Your task to perform on an android device: open app "Viber Messenger" Image 0: 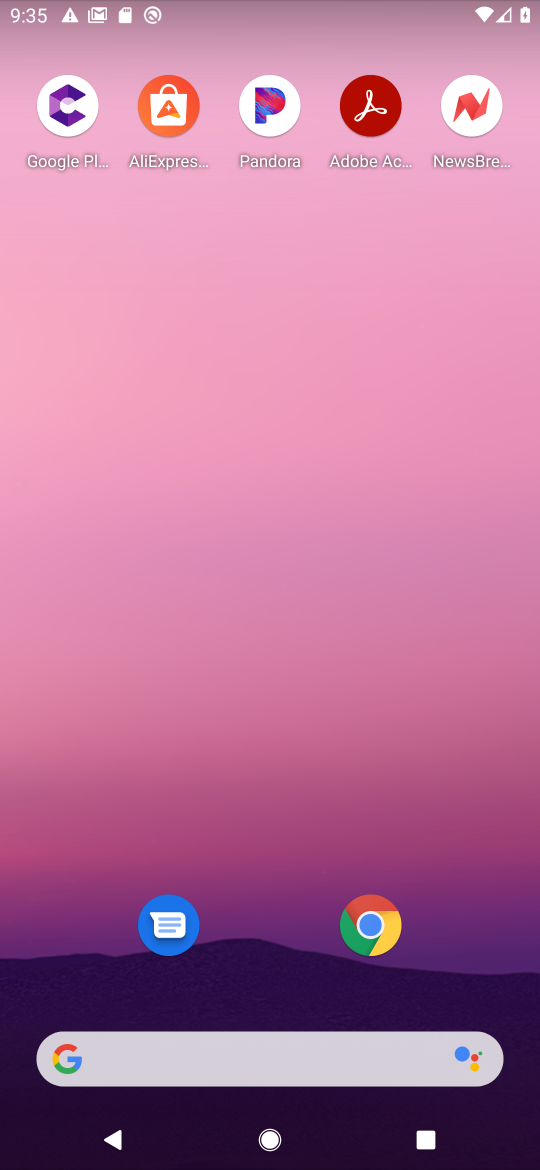
Step 0: click (234, 360)
Your task to perform on an android device: open app "Viber Messenger" Image 1: 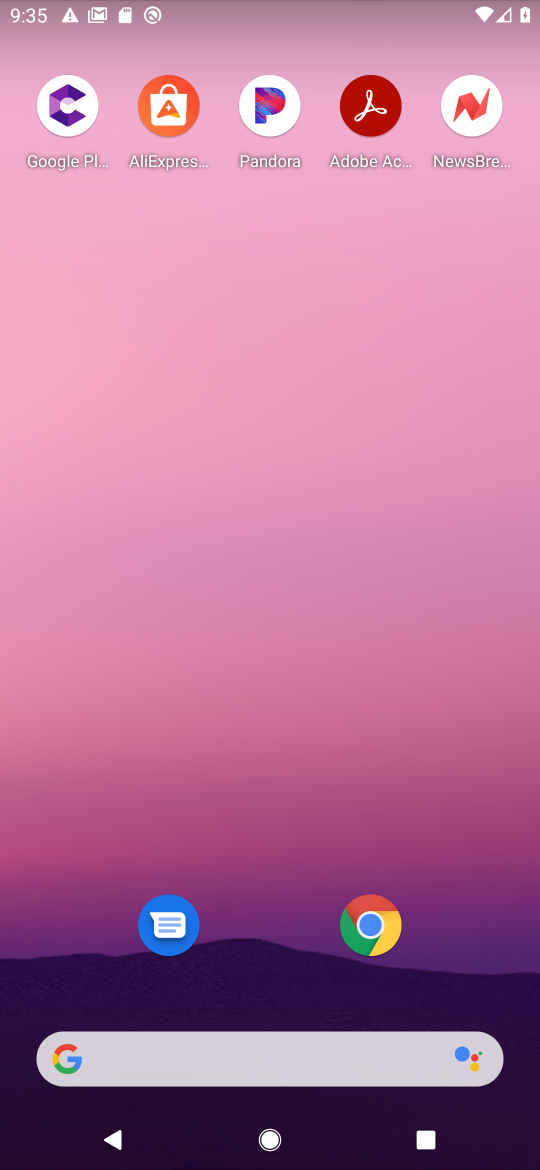
Step 1: drag from (304, 196) to (330, 134)
Your task to perform on an android device: open app "Viber Messenger" Image 2: 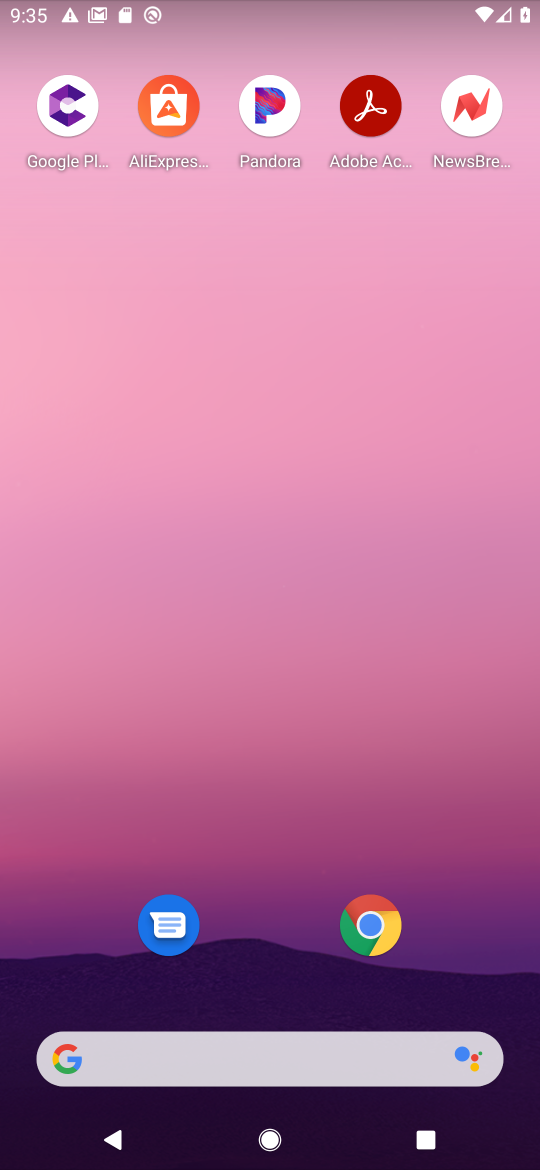
Step 2: drag from (280, 957) to (260, 160)
Your task to perform on an android device: open app "Viber Messenger" Image 3: 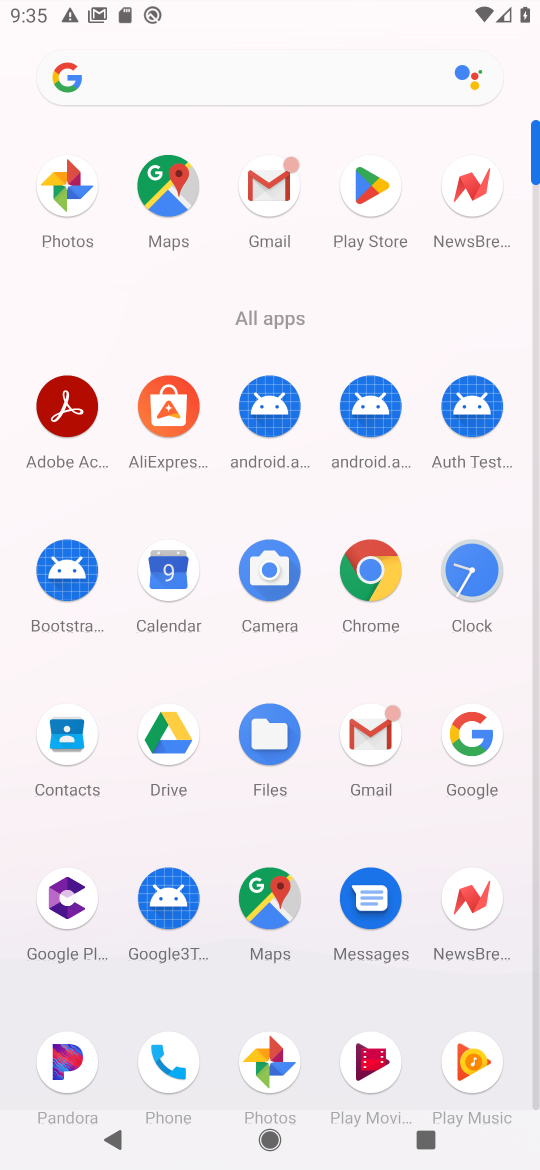
Step 3: click (374, 209)
Your task to perform on an android device: open app "Viber Messenger" Image 4: 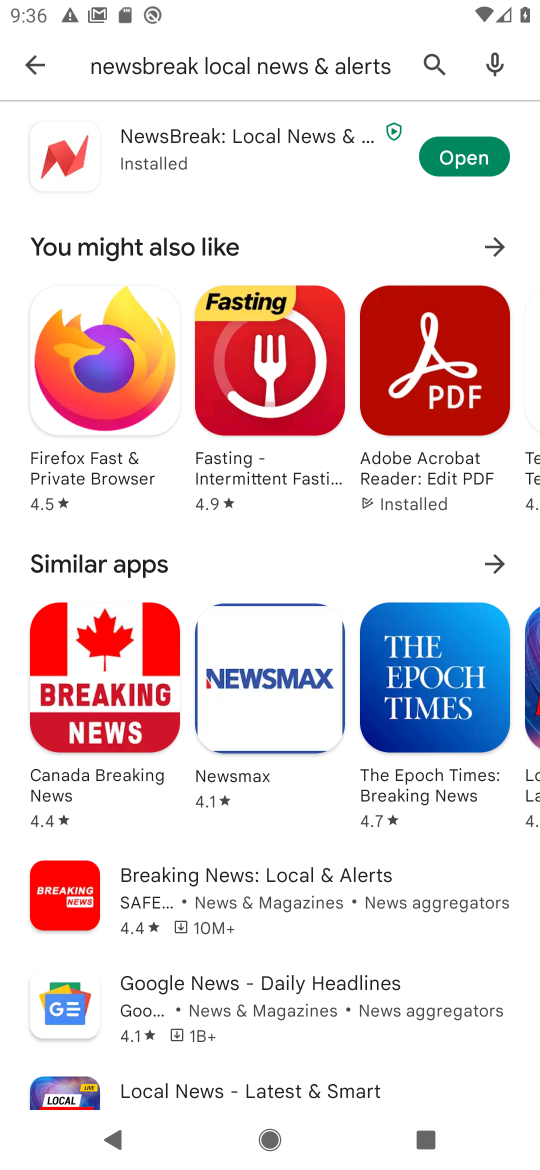
Step 4: click (34, 68)
Your task to perform on an android device: open app "Viber Messenger" Image 5: 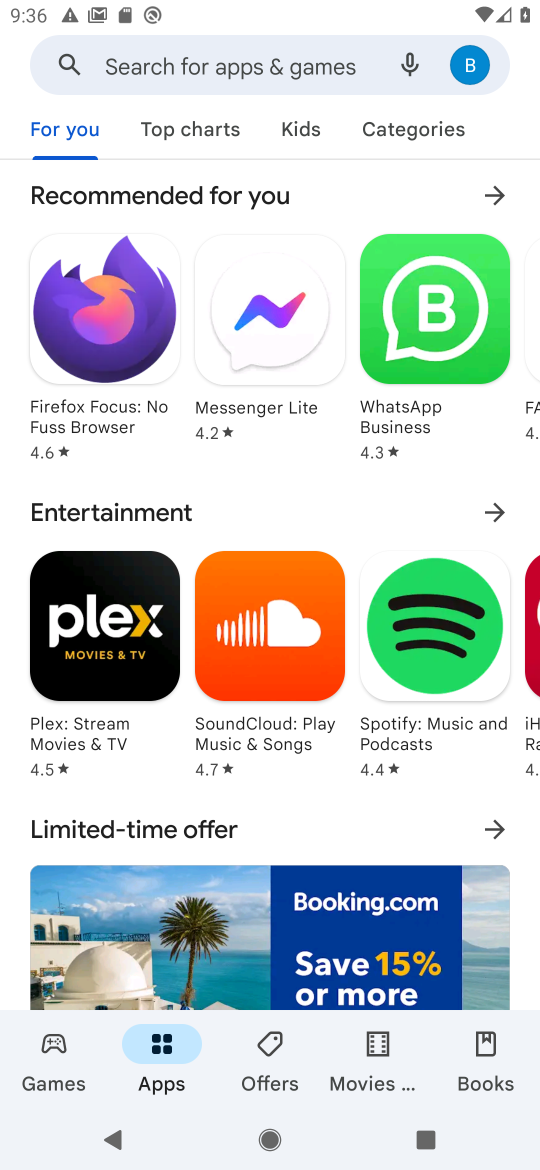
Step 5: click (150, 68)
Your task to perform on an android device: open app "Viber Messenger" Image 6: 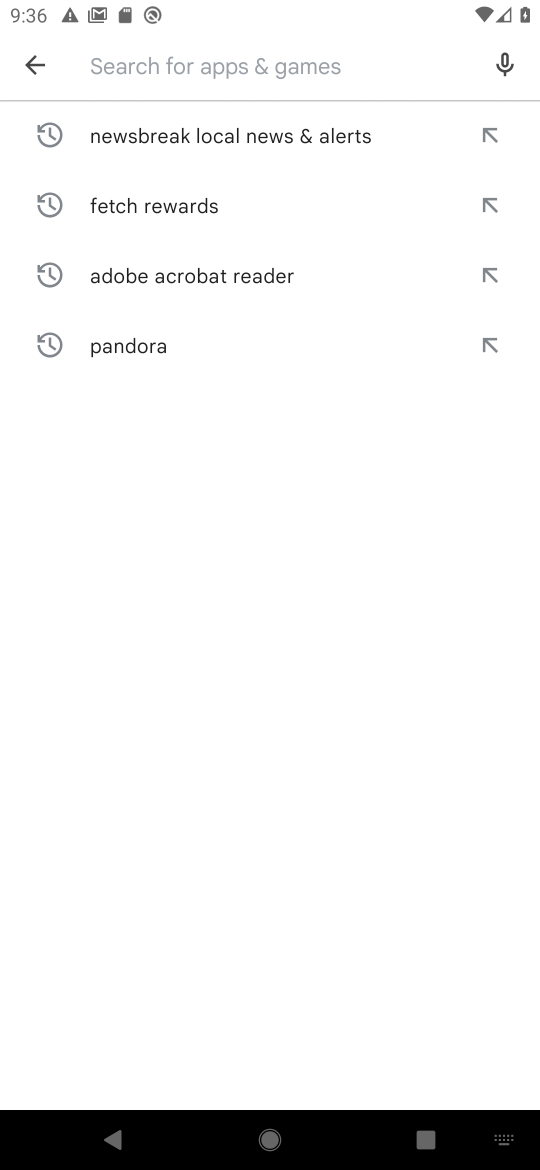
Step 6: type "Viber Messenger"
Your task to perform on an android device: open app "Viber Messenger" Image 7: 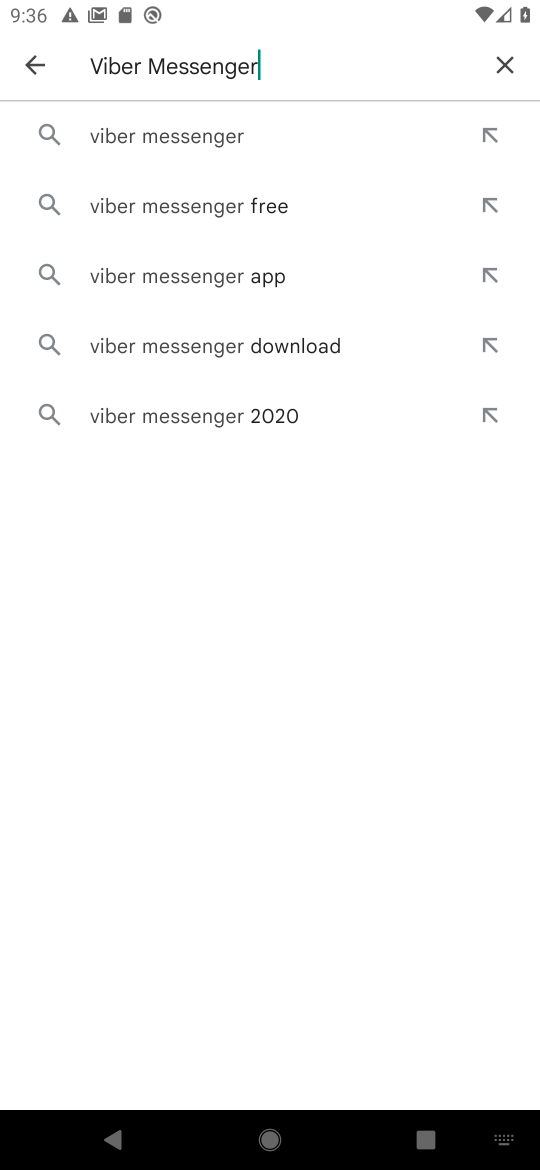
Step 7: click (218, 125)
Your task to perform on an android device: open app "Viber Messenger" Image 8: 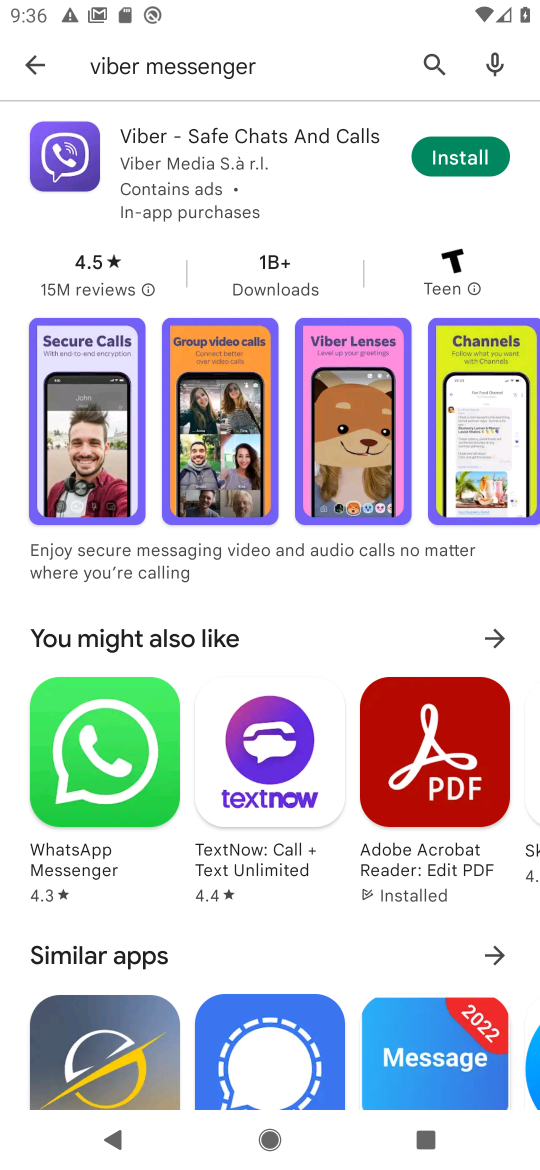
Step 8: click (448, 166)
Your task to perform on an android device: open app "Viber Messenger" Image 9: 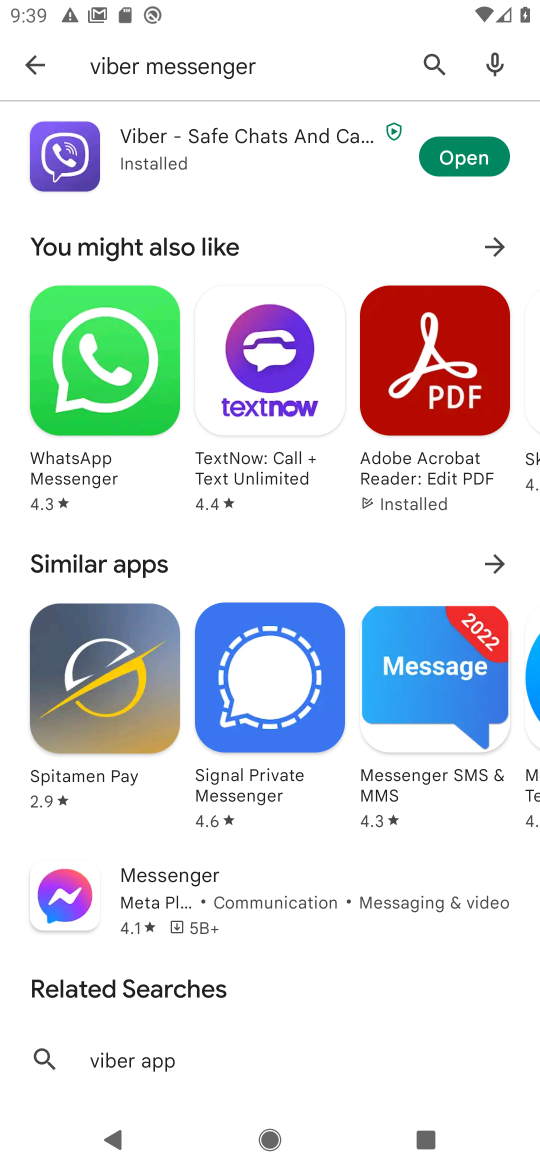
Step 9: click (448, 166)
Your task to perform on an android device: open app "Viber Messenger" Image 10: 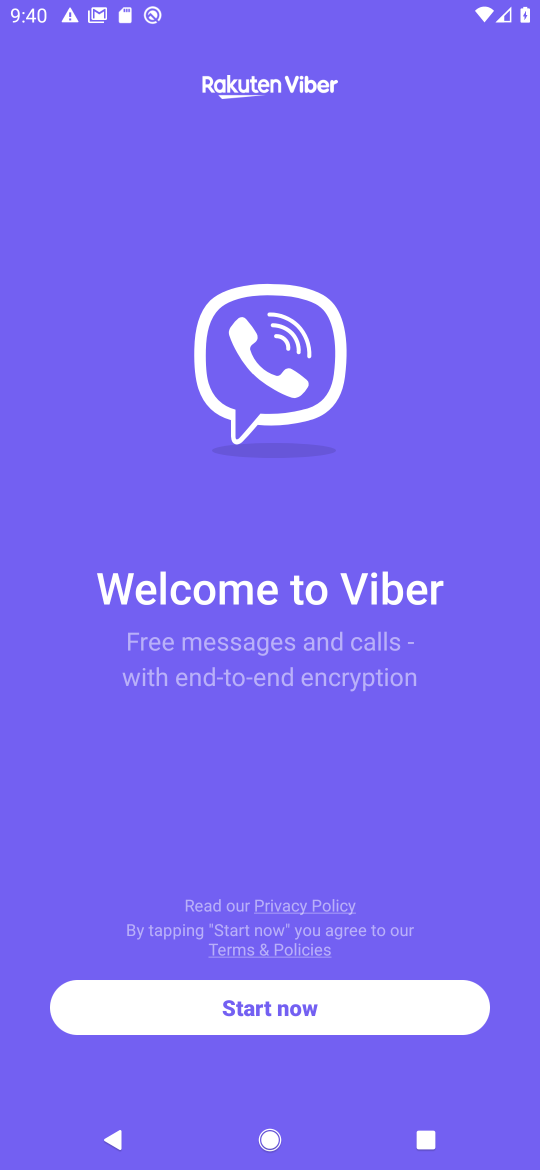
Step 10: task complete